Your task to perform on an android device: Open Youtube and go to "Your channel" Image 0: 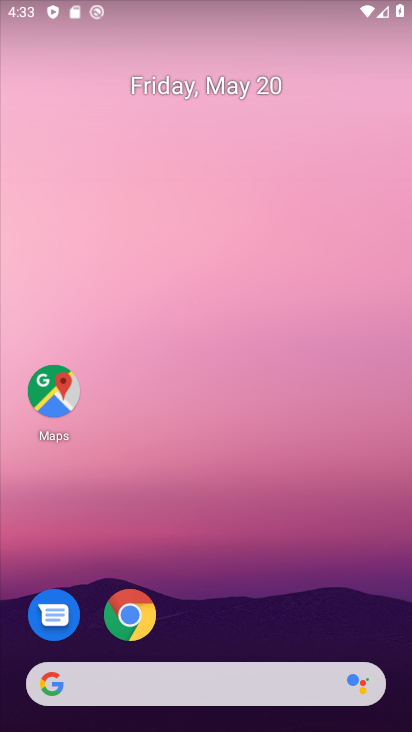
Step 0: drag from (168, 667) to (204, 125)
Your task to perform on an android device: Open Youtube and go to "Your channel" Image 1: 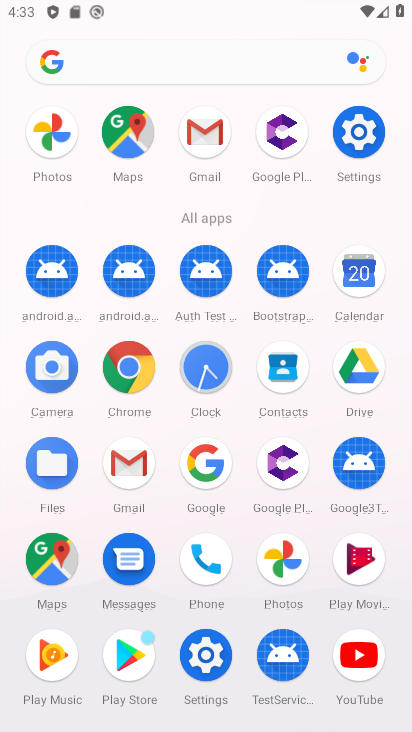
Step 1: click (367, 669)
Your task to perform on an android device: Open Youtube and go to "Your channel" Image 2: 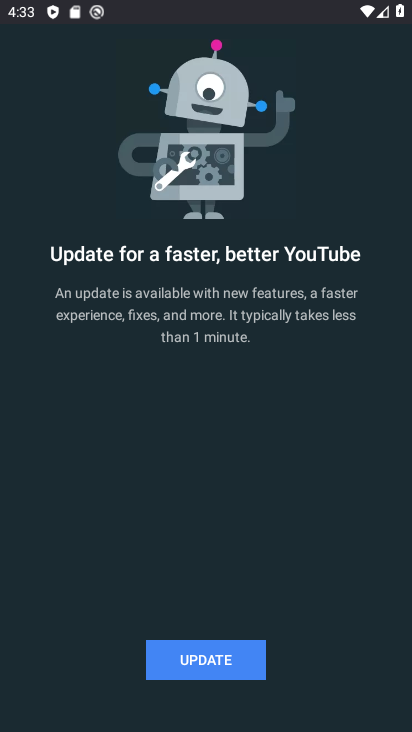
Step 2: click (231, 663)
Your task to perform on an android device: Open Youtube and go to "Your channel" Image 3: 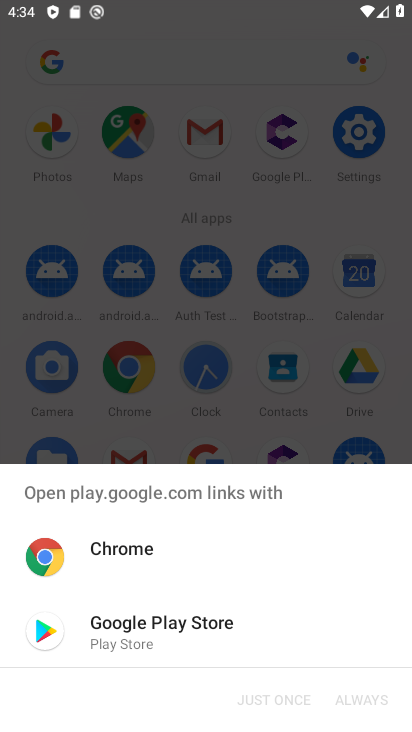
Step 3: click (225, 636)
Your task to perform on an android device: Open Youtube and go to "Your channel" Image 4: 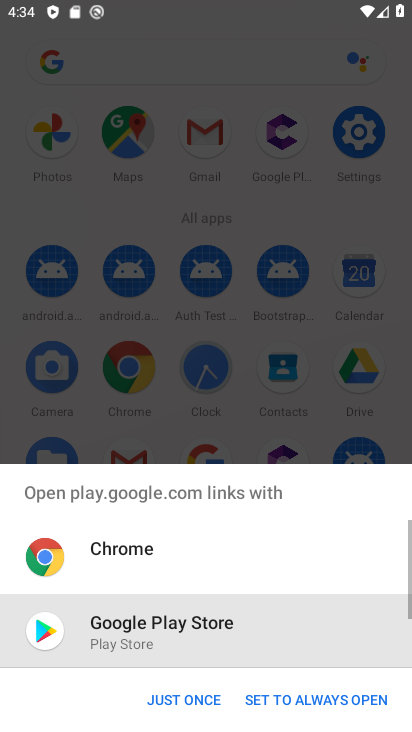
Step 4: click (191, 695)
Your task to perform on an android device: Open Youtube and go to "Your channel" Image 5: 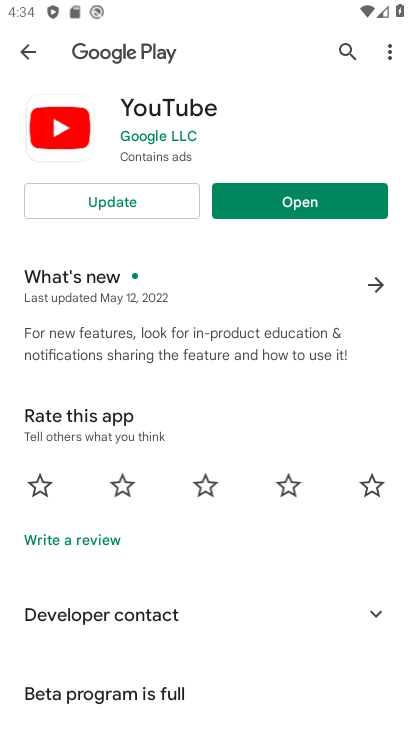
Step 5: click (119, 199)
Your task to perform on an android device: Open Youtube and go to "Your channel" Image 6: 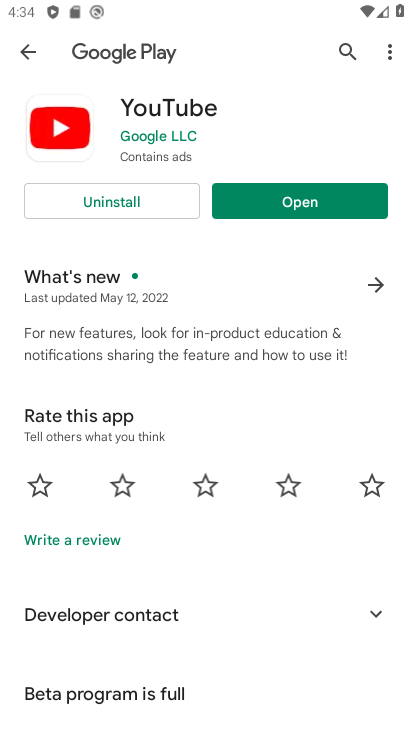
Step 6: click (329, 213)
Your task to perform on an android device: Open Youtube and go to "Your channel" Image 7: 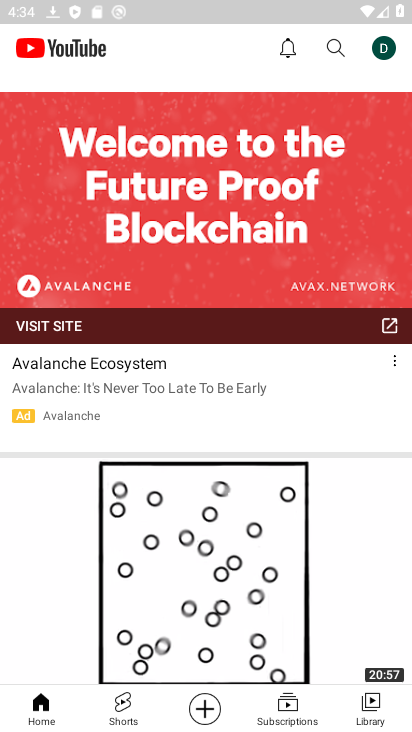
Step 7: click (374, 704)
Your task to perform on an android device: Open Youtube and go to "Your channel" Image 8: 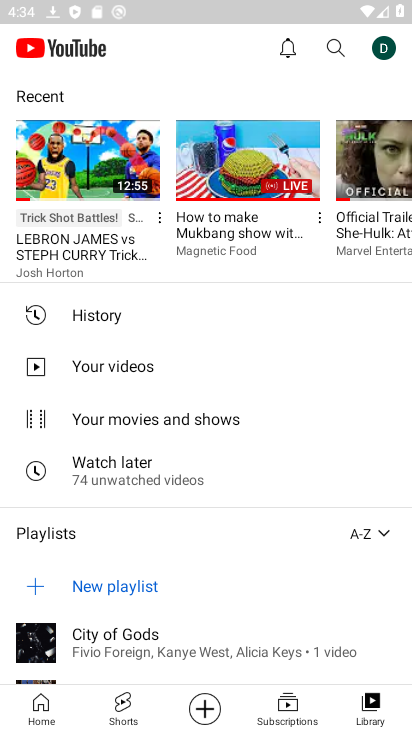
Step 8: click (380, 47)
Your task to perform on an android device: Open Youtube and go to "Your channel" Image 9: 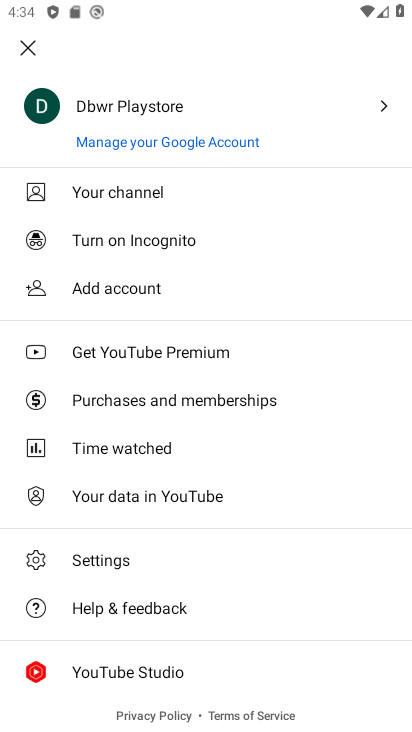
Step 9: click (259, 190)
Your task to perform on an android device: Open Youtube and go to "Your channel" Image 10: 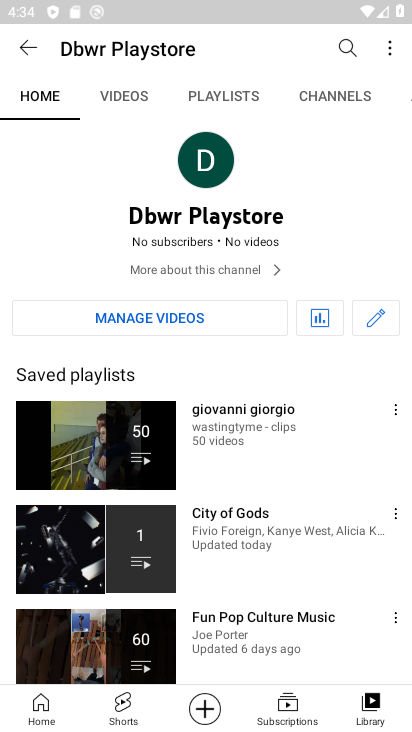
Step 10: task complete